Your task to perform on an android device: Go to ESPN.com Image 0: 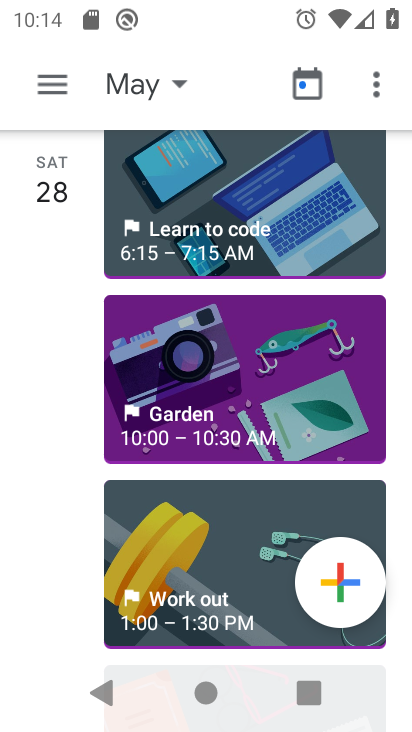
Step 0: press back button
Your task to perform on an android device: Go to ESPN.com Image 1: 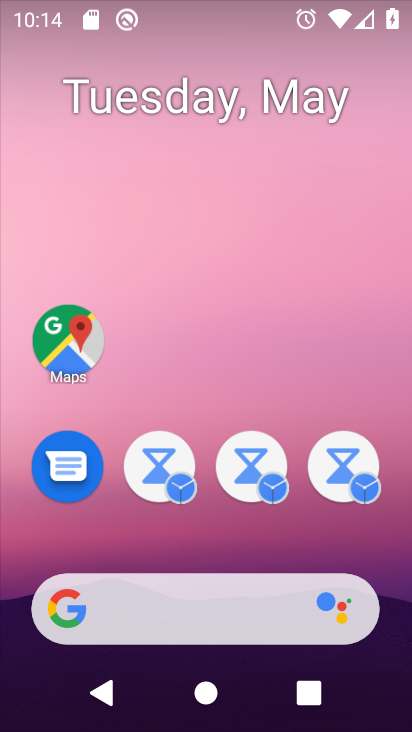
Step 1: drag from (200, 359) to (166, 139)
Your task to perform on an android device: Go to ESPN.com Image 2: 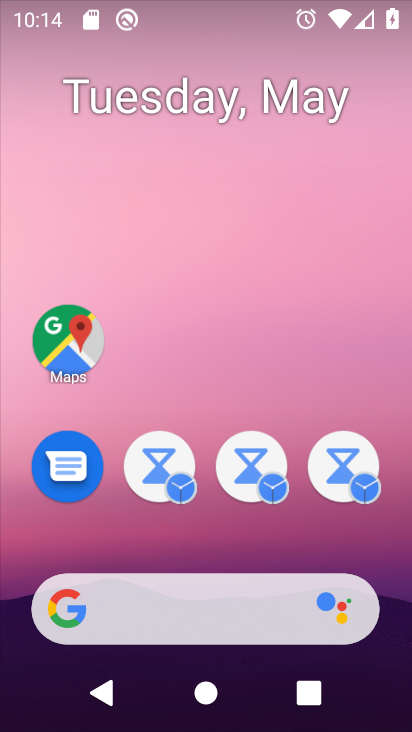
Step 2: drag from (236, 685) to (198, 284)
Your task to perform on an android device: Go to ESPN.com Image 3: 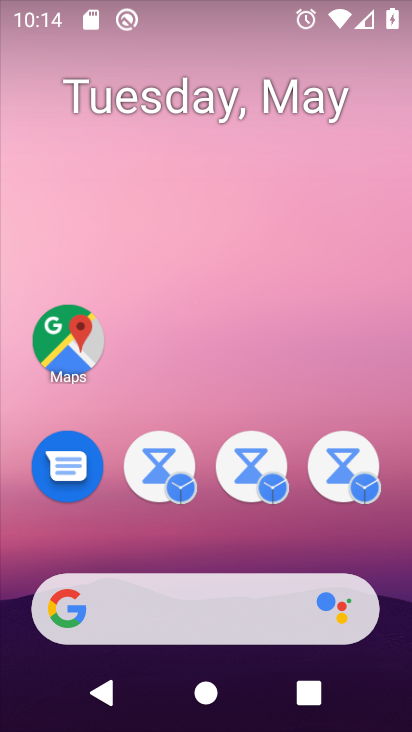
Step 3: drag from (257, 683) to (192, 153)
Your task to perform on an android device: Go to ESPN.com Image 4: 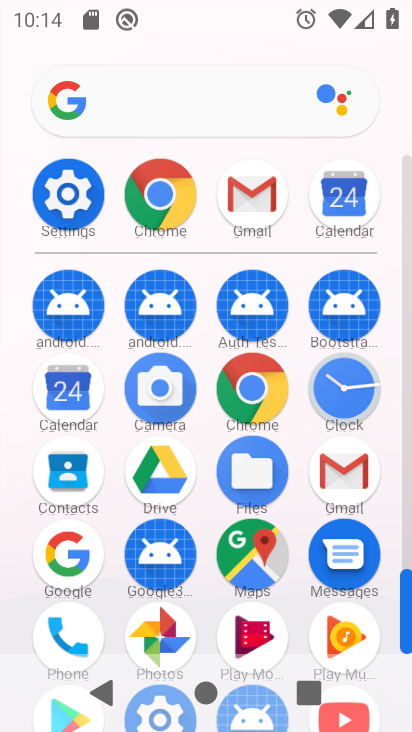
Step 4: drag from (218, 541) to (217, 251)
Your task to perform on an android device: Go to ESPN.com Image 5: 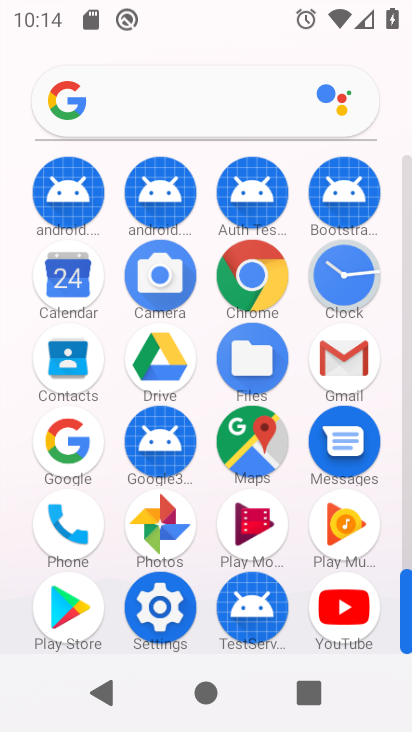
Step 5: drag from (241, 476) to (216, 237)
Your task to perform on an android device: Go to ESPN.com Image 6: 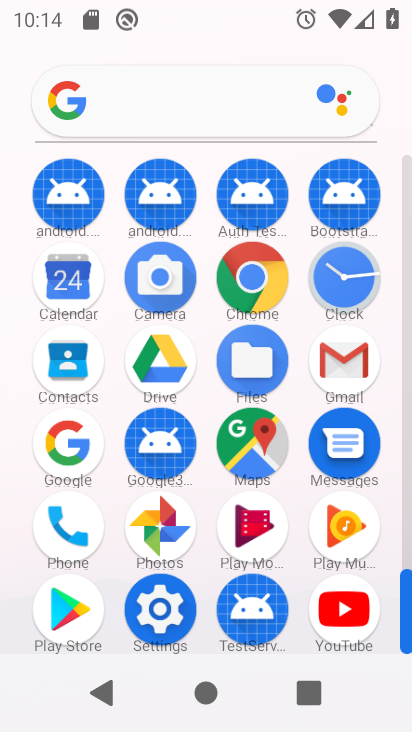
Step 6: drag from (159, 279) to (268, 522)
Your task to perform on an android device: Go to ESPN.com Image 7: 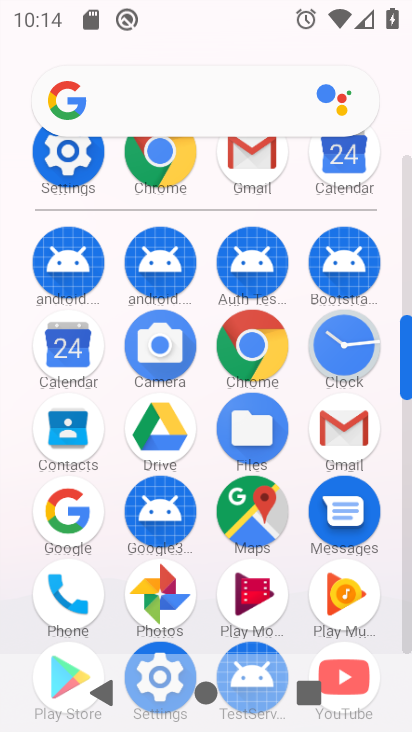
Step 7: drag from (205, 294) to (244, 545)
Your task to perform on an android device: Go to ESPN.com Image 8: 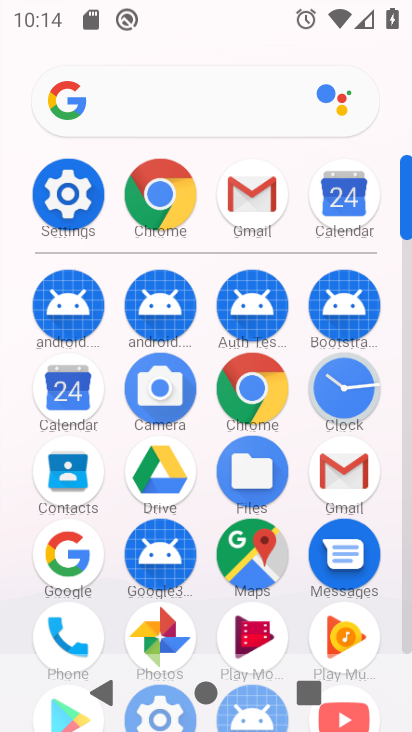
Step 8: drag from (189, 314) to (246, 584)
Your task to perform on an android device: Go to ESPN.com Image 9: 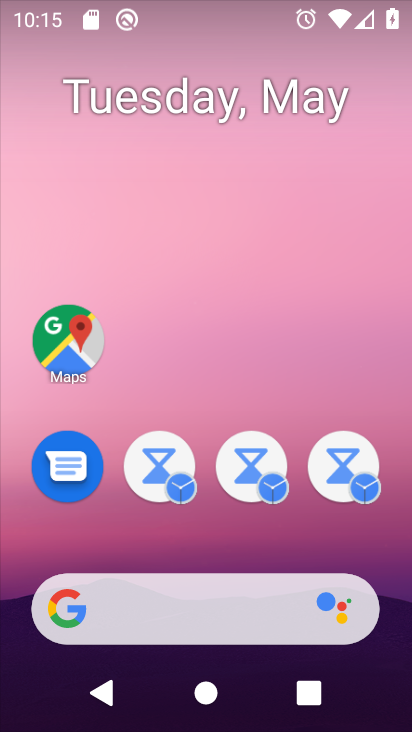
Step 9: press back button
Your task to perform on an android device: Go to ESPN.com Image 10: 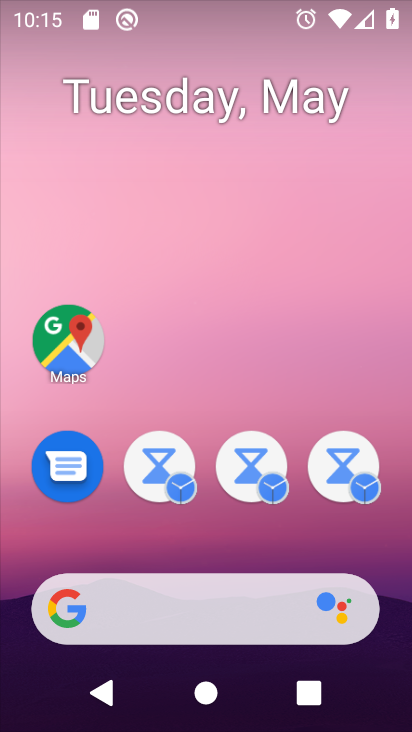
Step 10: press home button
Your task to perform on an android device: Go to ESPN.com Image 11: 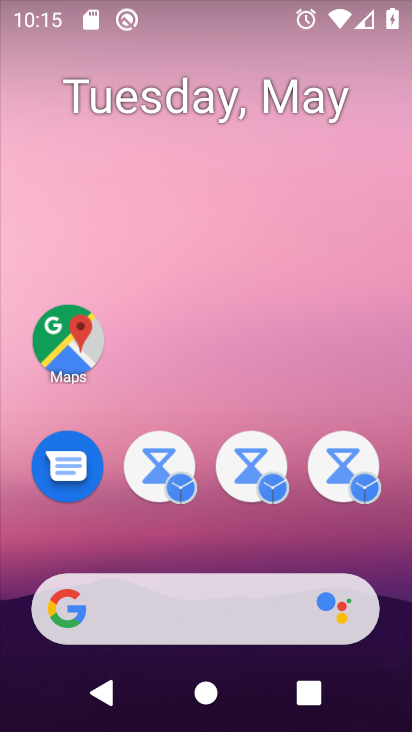
Step 11: drag from (279, 673) to (32, 17)
Your task to perform on an android device: Go to ESPN.com Image 12: 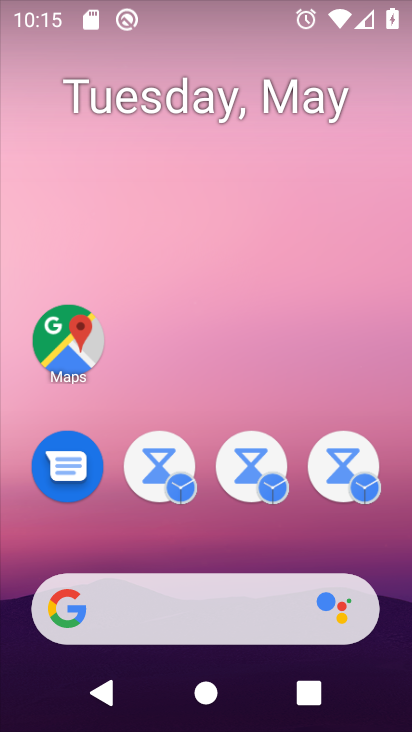
Step 12: drag from (278, 655) to (200, 184)
Your task to perform on an android device: Go to ESPN.com Image 13: 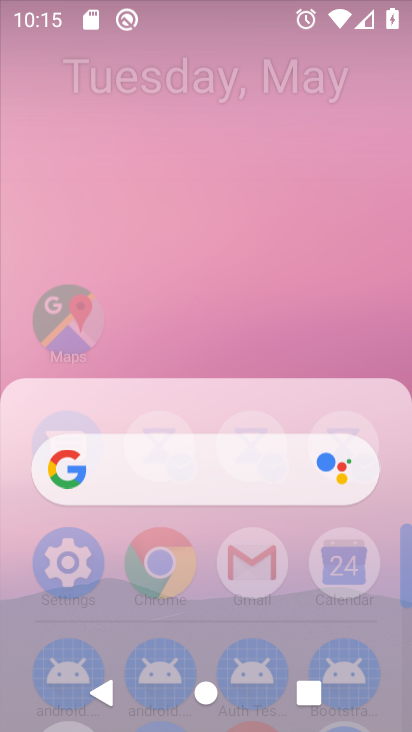
Step 13: drag from (271, 624) to (177, 131)
Your task to perform on an android device: Go to ESPN.com Image 14: 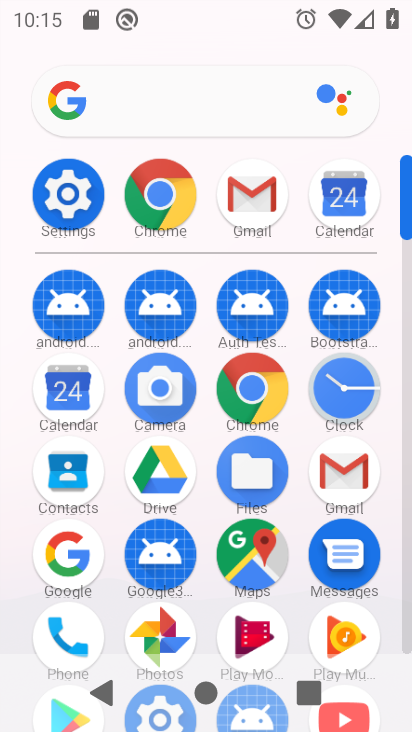
Step 14: drag from (218, 511) to (148, 7)
Your task to perform on an android device: Go to ESPN.com Image 15: 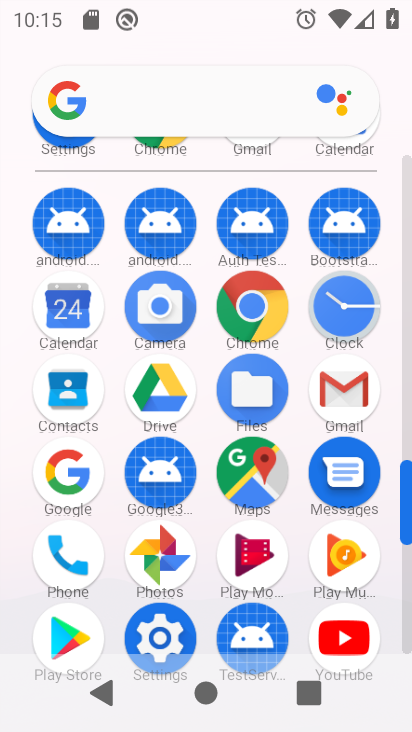
Step 15: click (252, 322)
Your task to perform on an android device: Go to ESPN.com Image 16: 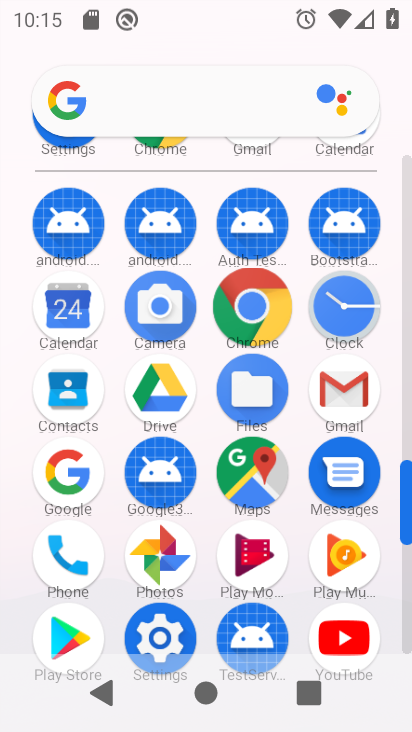
Step 16: click (253, 319)
Your task to perform on an android device: Go to ESPN.com Image 17: 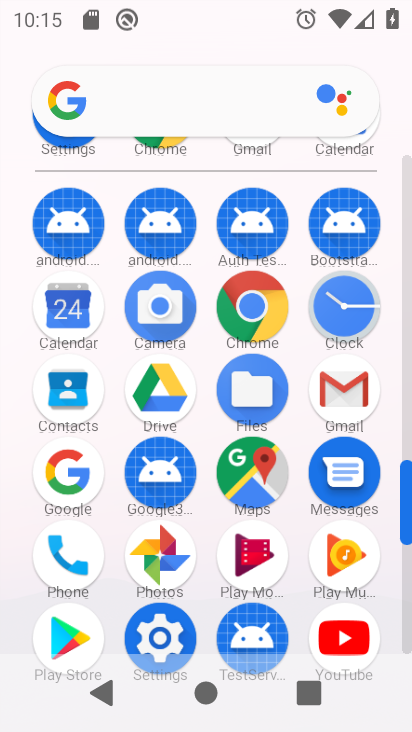
Step 17: click (247, 306)
Your task to perform on an android device: Go to ESPN.com Image 18: 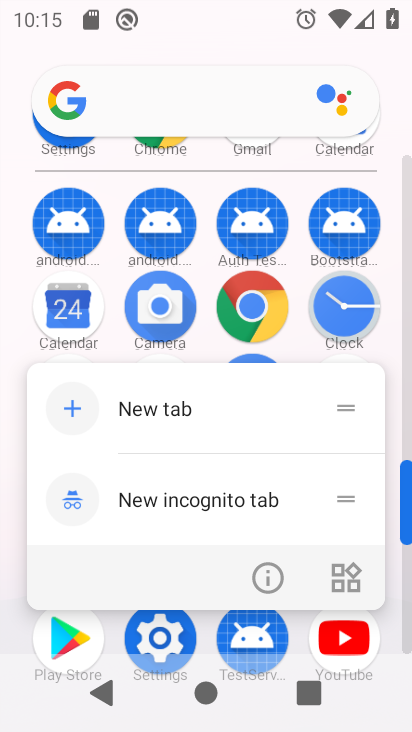
Step 18: click (242, 315)
Your task to perform on an android device: Go to ESPN.com Image 19: 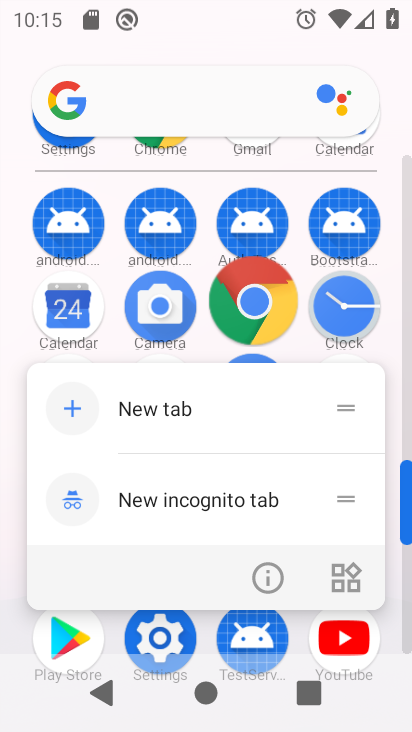
Step 19: click (244, 309)
Your task to perform on an android device: Go to ESPN.com Image 20: 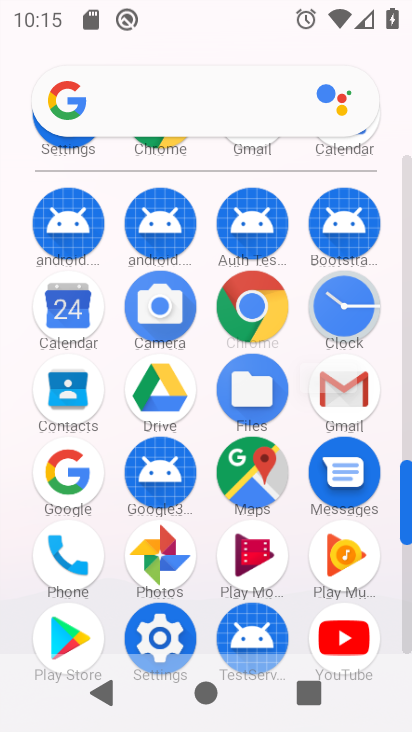
Step 20: click (248, 306)
Your task to perform on an android device: Go to ESPN.com Image 21: 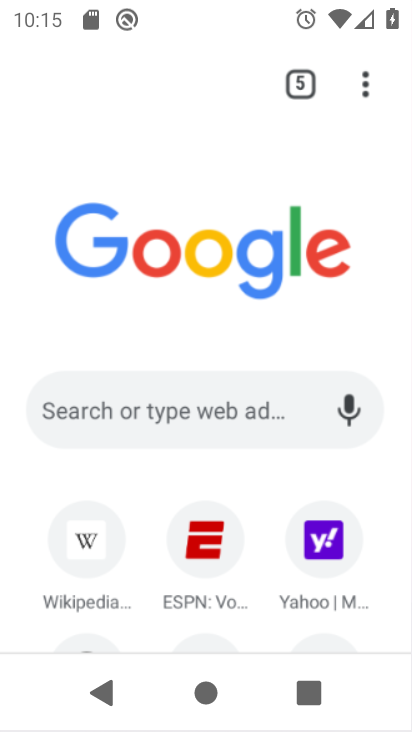
Step 21: click (248, 306)
Your task to perform on an android device: Go to ESPN.com Image 22: 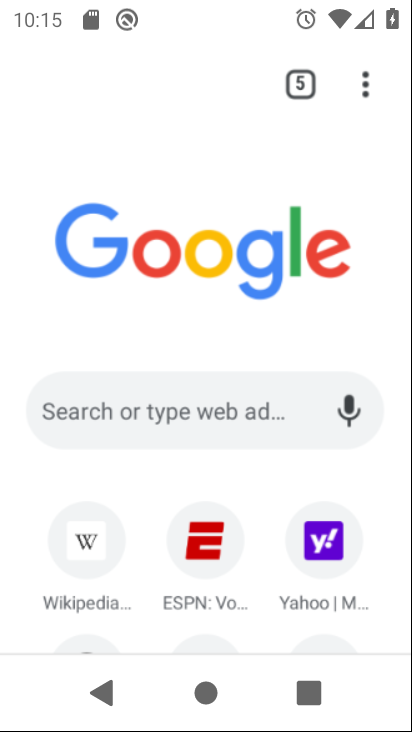
Step 22: click (249, 305)
Your task to perform on an android device: Go to ESPN.com Image 23: 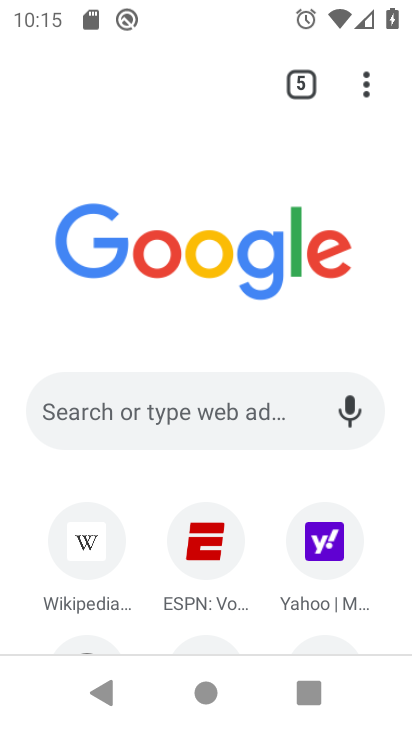
Step 23: click (220, 555)
Your task to perform on an android device: Go to ESPN.com Image 24: 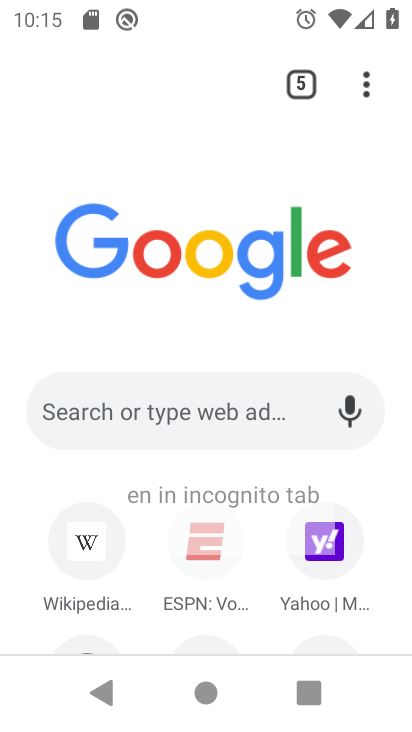
Step 24: click (218, 552)
Your task to perform on an android device: Go to ESPN.com Image 25: 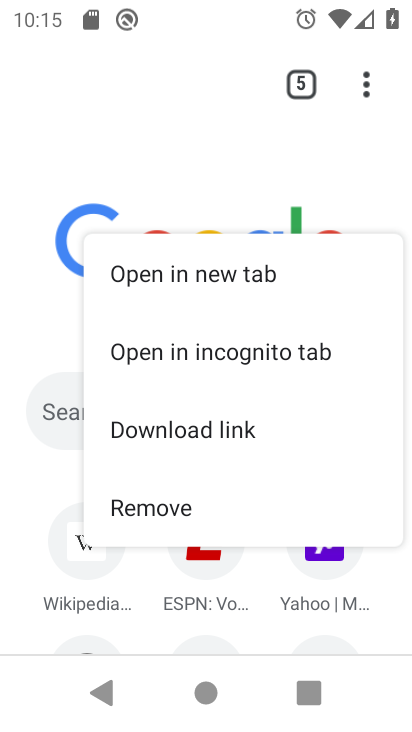
Step 25: click (217, 545)
Your task to perform on an android device: Go to ESPN.com Image 26: 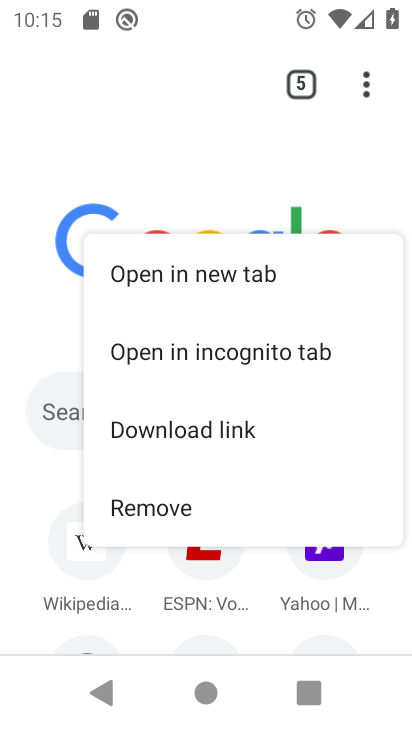
Step 26: click (215, 541)
Your task to perform on an android device: Go to ESPN.com Image 27: 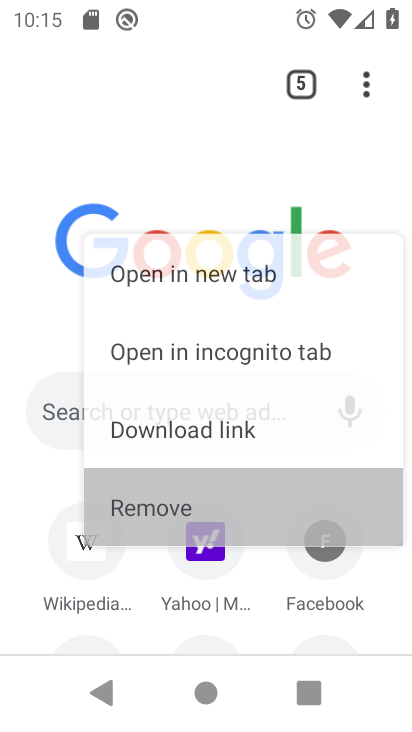
Step 27: click (215, 541)
Your task to perform on an android device: Go to ESPN.com Image 28: 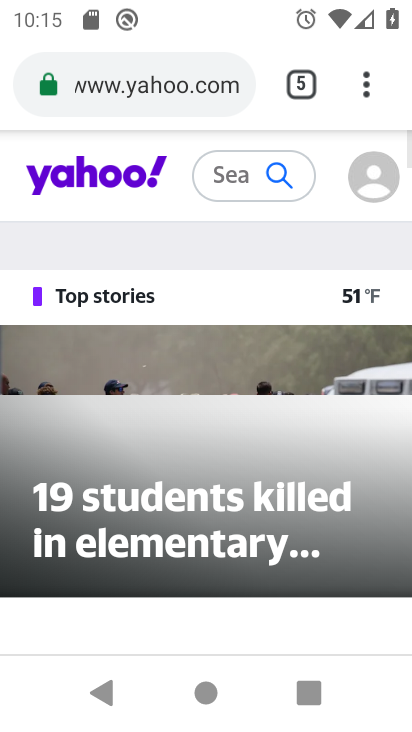
Step 28: task complete